Your task to perform on an android device: open the mobile data screen to see how much data has been used Image 0: 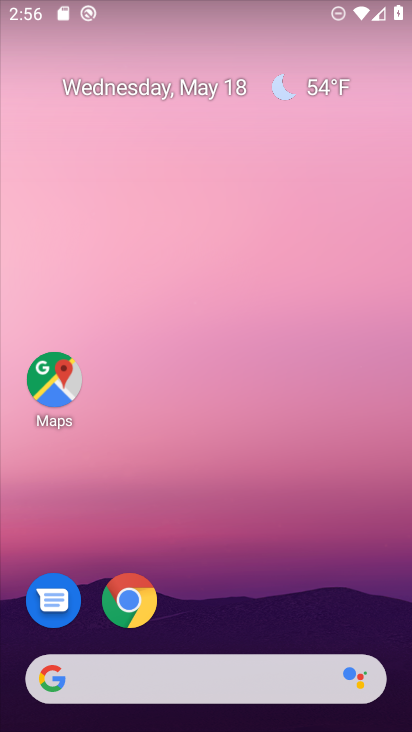
Step 0: drag from (228, 619) to (286, 219)
Your task to perform on an android device: open the mobile data screen to see how much data has been used Image 1: 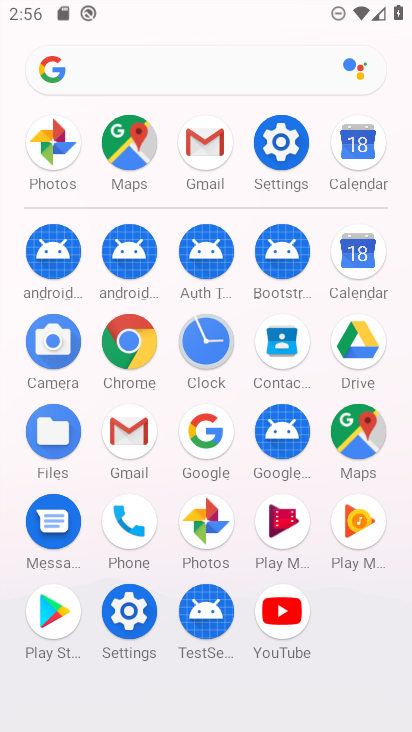
Step 1: click (285, 155)
Your task to perform on an android device: open the mobile data screen to see how much data has been used Image 2: 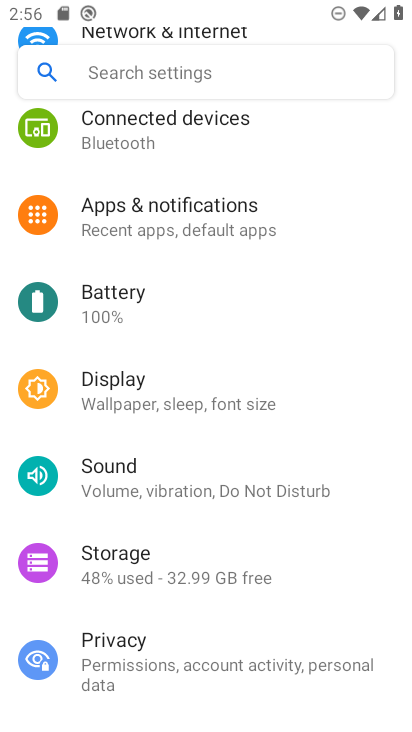
Step 2: drag from (245, 203) to (249, 299)
Your task to perform on an android device: open the mobile data screen to see how much data has been used Image 3: 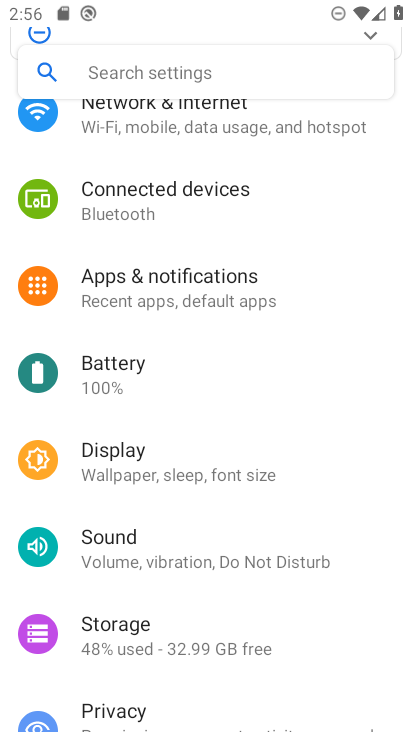
Step 3: click (210, 127)
Your task to perform on an android device: open the mobile data screen to see how much data has been used Image 4: 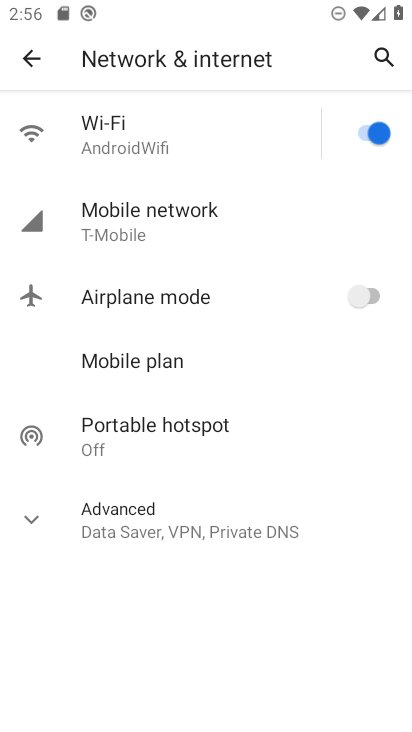
Step 4: click (144, 242)
Your task to perform on an android device: open the mobile data screen to see how much data has been used Image 5: 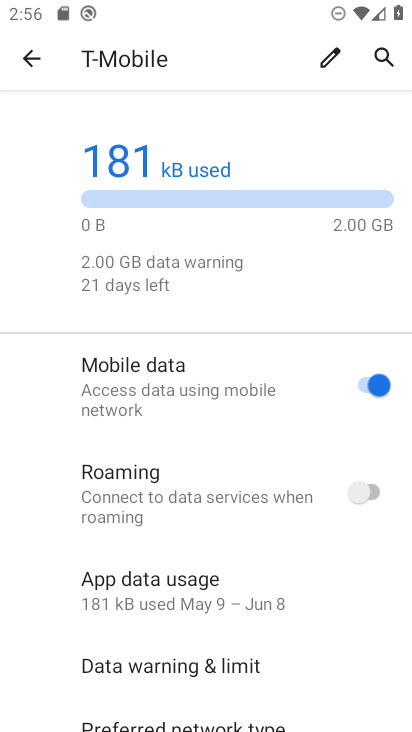
Step 5: click (174, 589)
Your task to perform on an android device: open the mobile data screen to see how much data has been used Image 6: 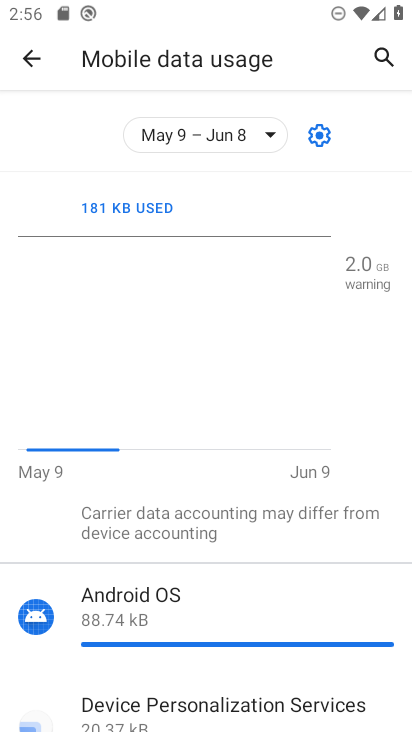
Step 6: task complete